Your task to perform on an android device: Show me popular games on the Play Store Image 0: 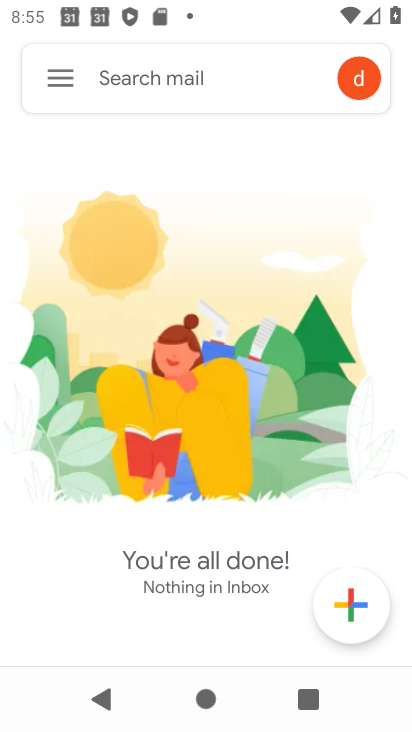
Step 0: press back button
Your task to perform on an android device: Show me popular games on the Play Store Image 1: 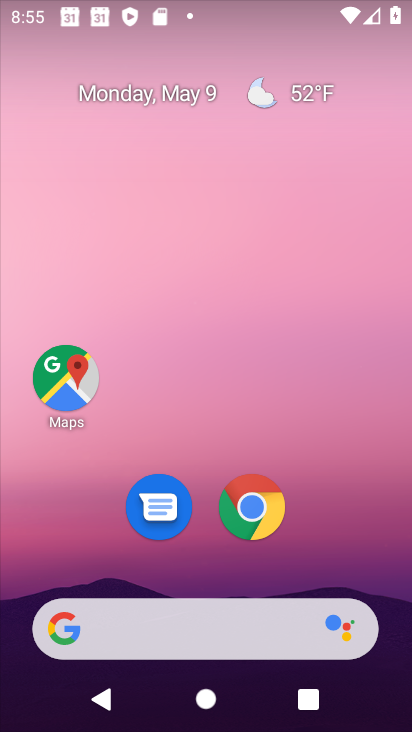
Step 1: drag from (327, 548) to (272, 52)
Your task to perform on an android device: Show me popular games on the Play Store Image 2: 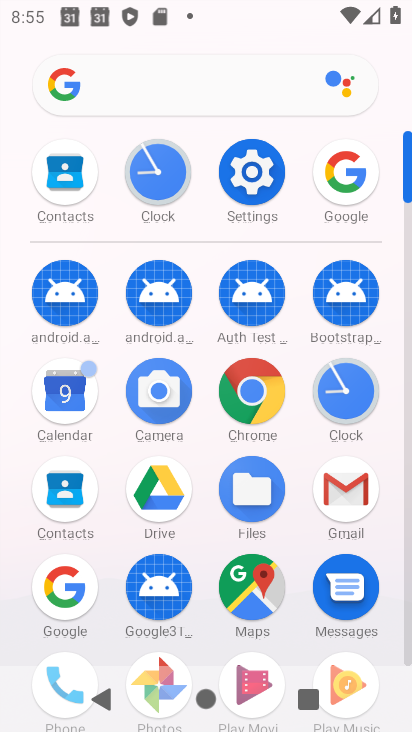
Step 2: drag from (203, 551) to (190, 219)
Your task to perform on an android device: Show me popular games on the Play Store Image 3: 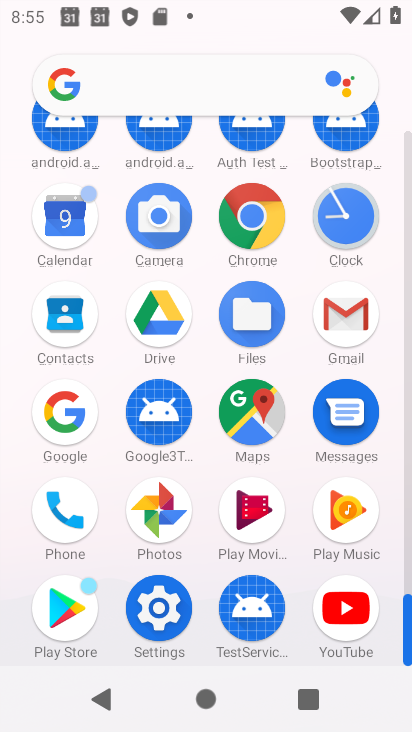
Step 3: click (69, 608)
Your task to perform on an android device: Show me popular games on the Play Store Image 4: 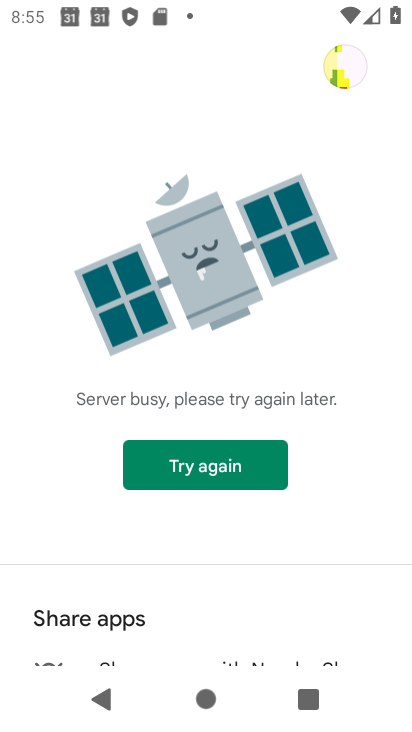
Step 4: drag from (175, 534) to (227, 272)
Your task to perform on an android device: Show me popular games on the Play Store Image 5: 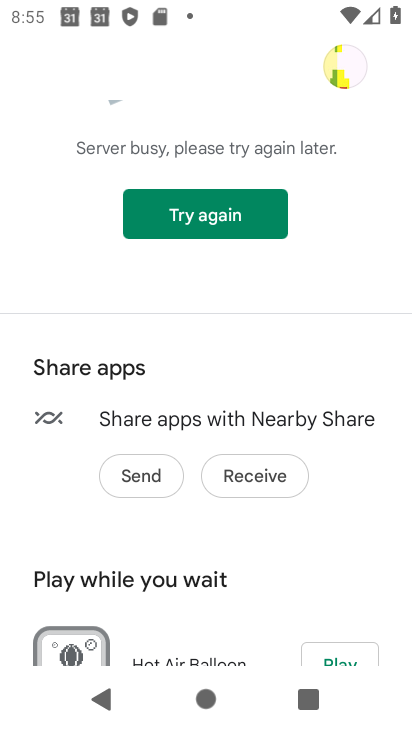
Step 5: drag from (214, 538) to (287, 274)
Your task to perform on an android device: Show me popular games on the Play Store Image 6: 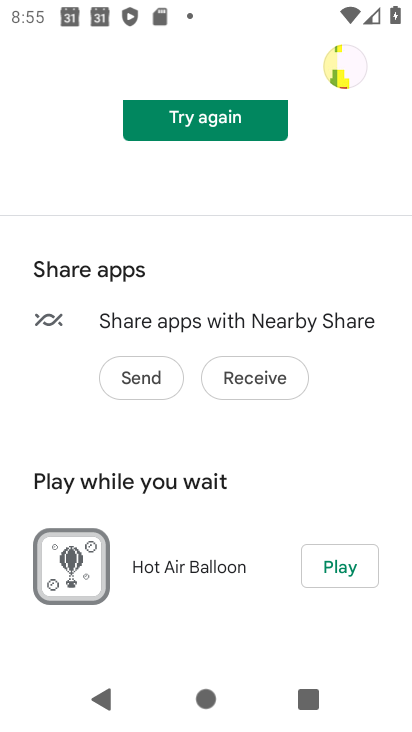
Step 6: drag from (248, 294) to (287, 582)
Your task to perform on an android device: Show me popular games on the Play Store Image 7: 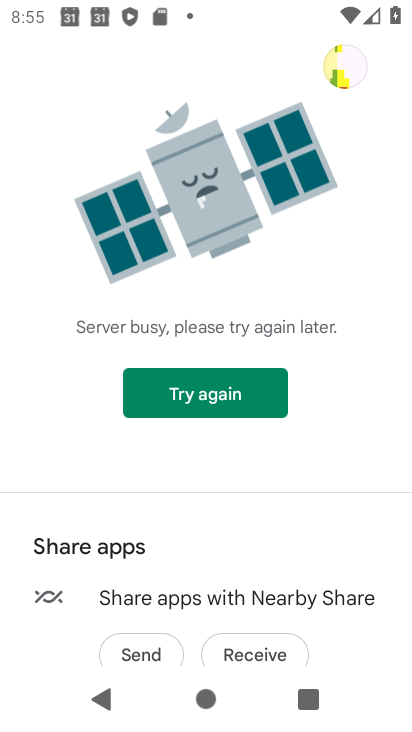
Step 7: click (199, 395)
Your task to perform on an android device: Show me popular games on the Play Store Image 8: 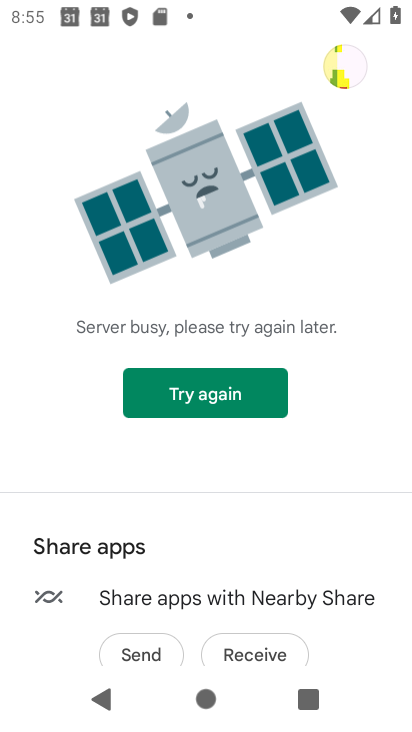
Step 8: click (199, 395)
Your task to perform on an android device: Show me popular games on the Play Store Image 9: 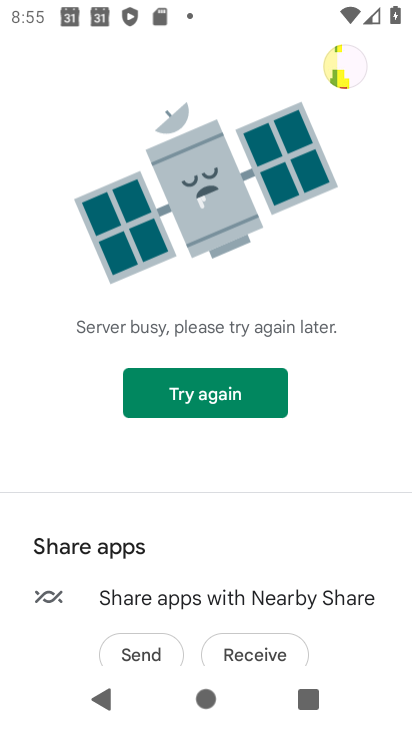
Step 9: press back button
Your task to perform on an android device: Show me popular games on the Play Store Image 10: 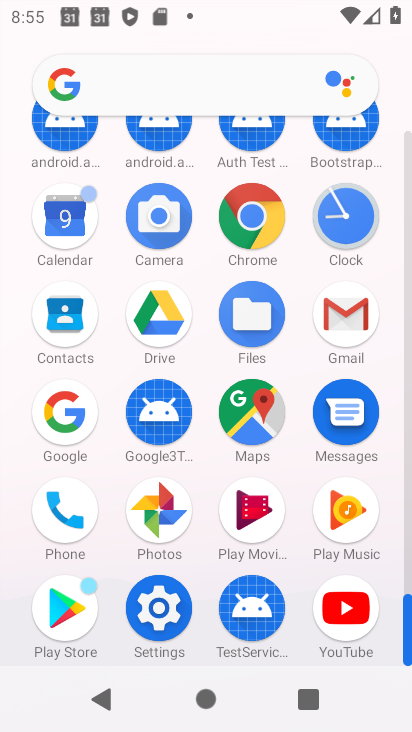
Step 10: click (64, 606)
Your task to perform on an android device: Show me popular games on the Play Store Image 11: 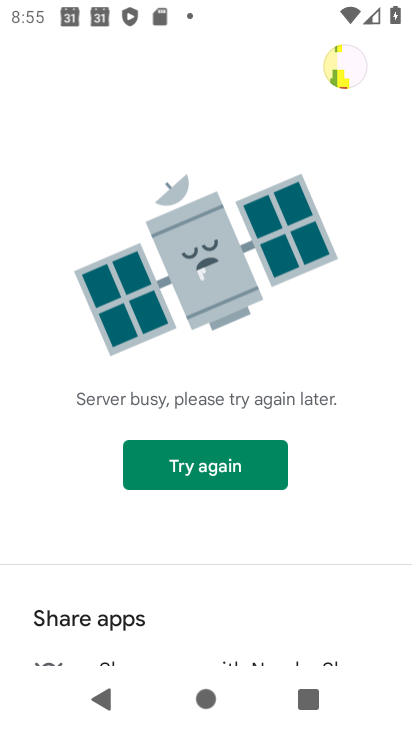
Step 11: click (151, 462)
Your task to perform on an android device: Show me popular games on the Play Store Image 12: 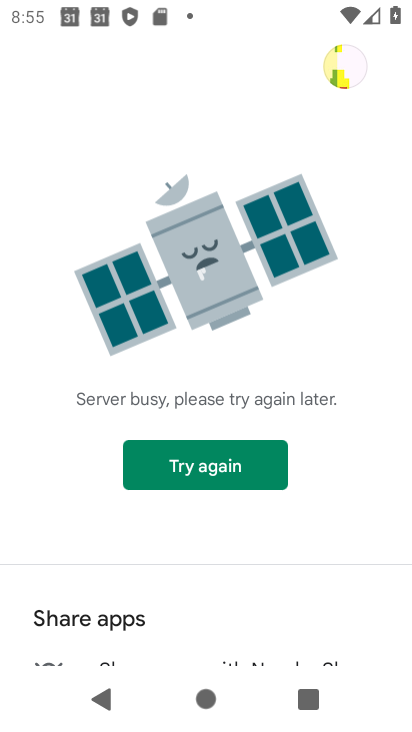
Step 12: task complete